Your task to perform on an android device: Find coffee shops on Maps Image 0: 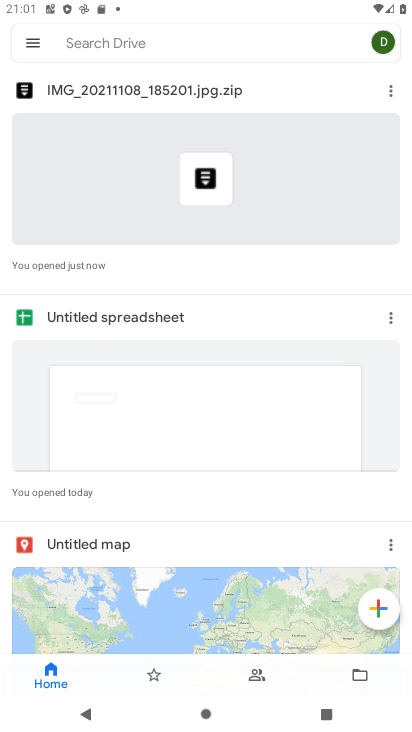
Step 0: press home button
Your task to perform on an android device: Find coffee shops on Maps Image 1: 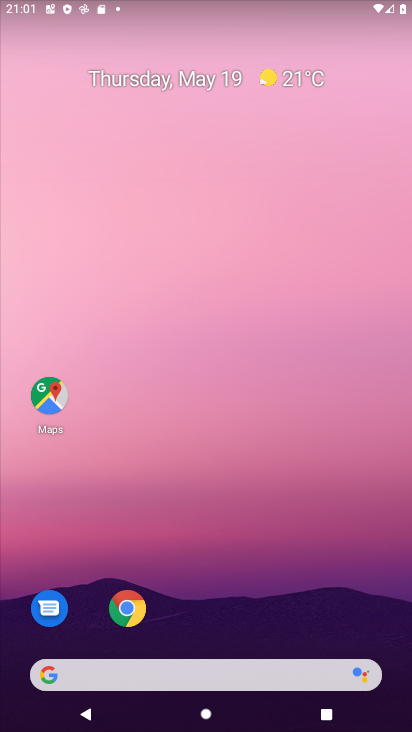
Step 1: click (36, 395)
Your task to perform on an android device: Find coffee shops on Maps Image 2: 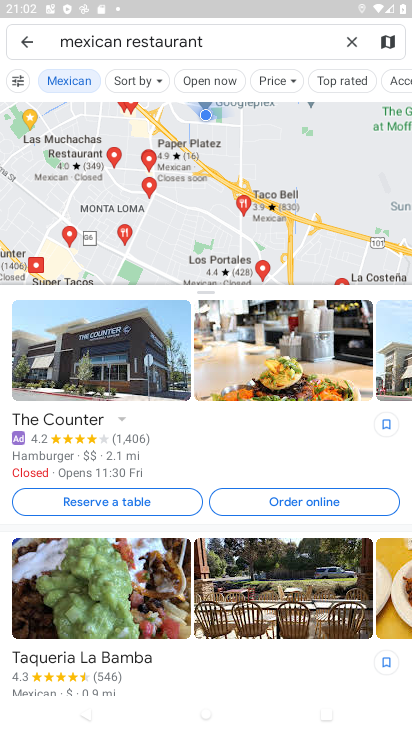
Step 2: click (347, 36)
Your task to perform on an android device: Find coffee shops on Maps Image 3: 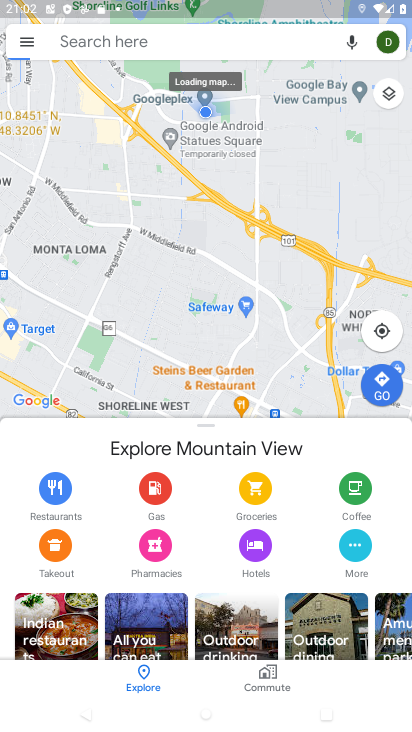
Step 3: click (110, 33)
Your task to perform on an android device: Find coffee shops on Maps Image 4: 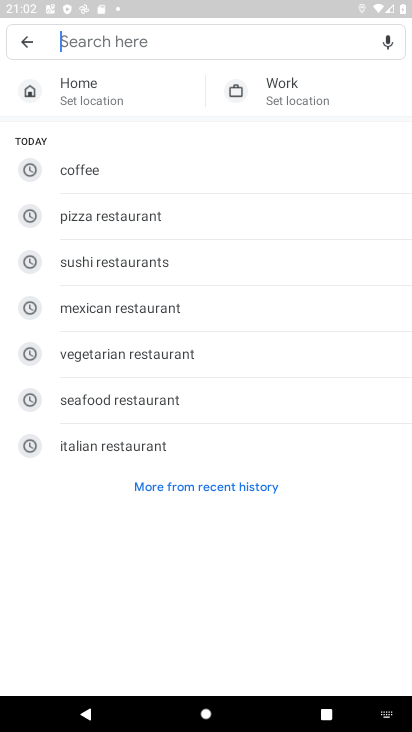
Step 4: click (86, 166)
Your task to perform on an android device: Find coffee shops on Maps Image 5: 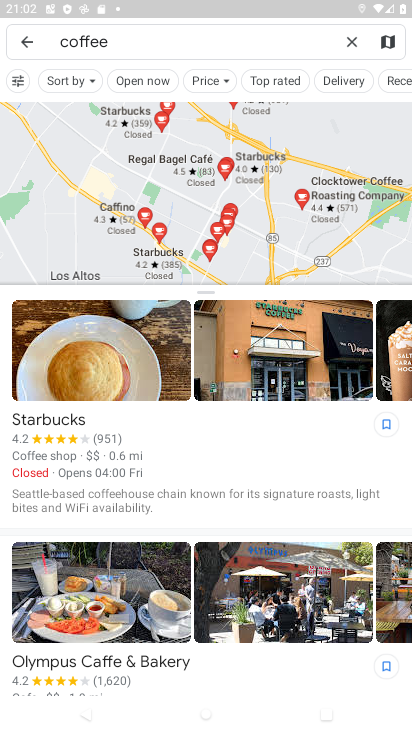
Step 5: task complete